Your task to perform on an android device: Open the web browser Image 0: 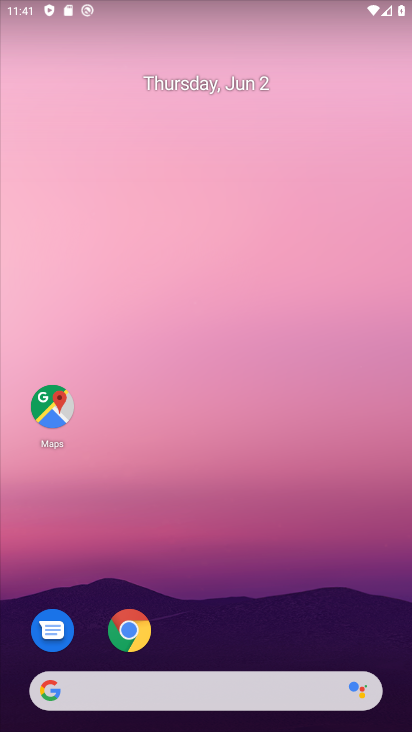
Step 0: drag from (155, 655) to (275, 168)
Your task to perform on an android device: Open the web browser Image 1: 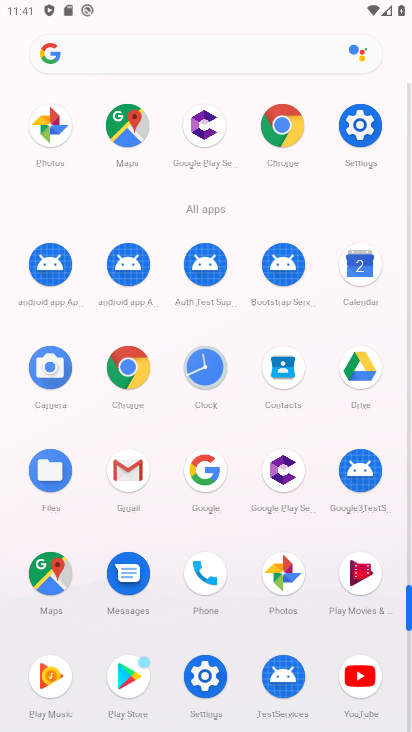
Step 1: click (203, 470)
Your task to perform on an android device: Open the web browser Image 2: 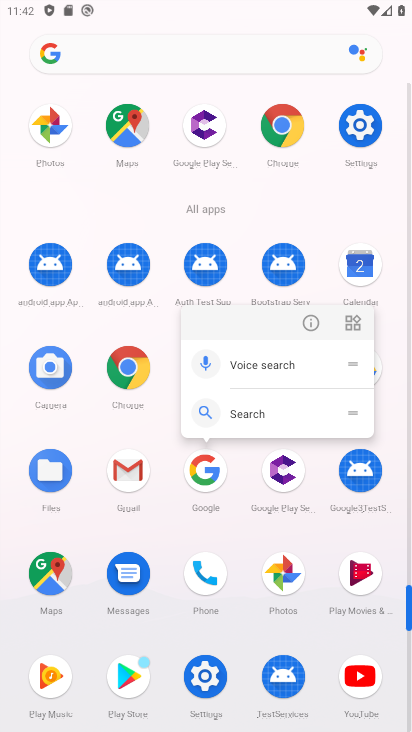
Step 2: click (193, 469)
Your task to perform on an android device: Open the web browser Image 3: 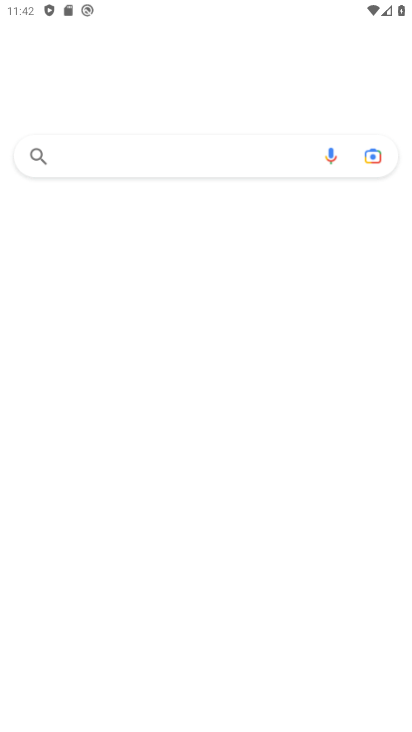
Step 3: click (206, 478)
Your task to perform on an android device: Open the web browser Image 4: 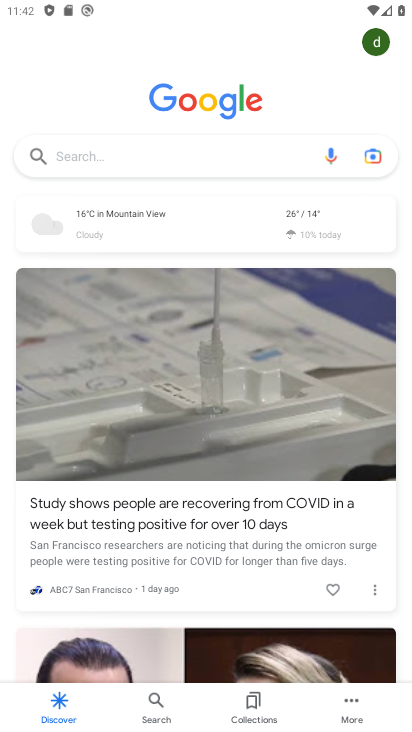
Step 4: task complete